Your task to perform on an android device: manage bookmarks in the chrome app Image 0: 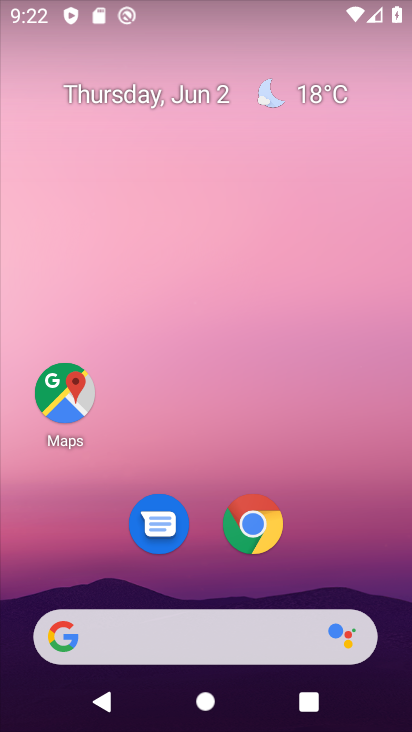
Step 0: click (259, 524)
Your task to perform on an android device: manage bookmarks in the chrome app Image 1: 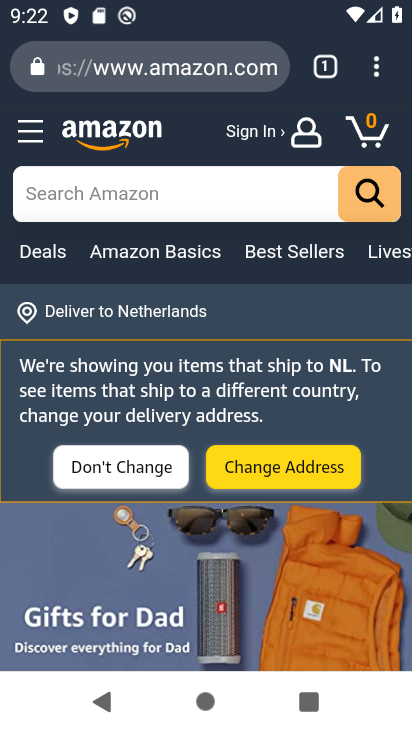
Step 1: click (378, 69)
Your task to perform on an android device: manage bookmarks in the chrome app Image 2: 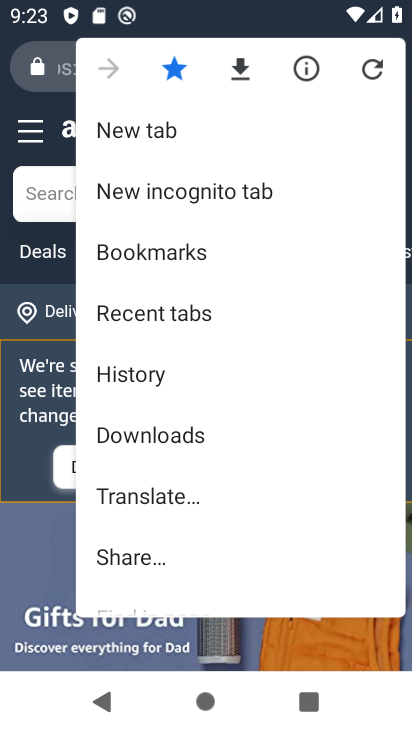
Step 2: click (183, 253)
Your task to perform on an android device: manage bookmarks in the chrome app Image 3: 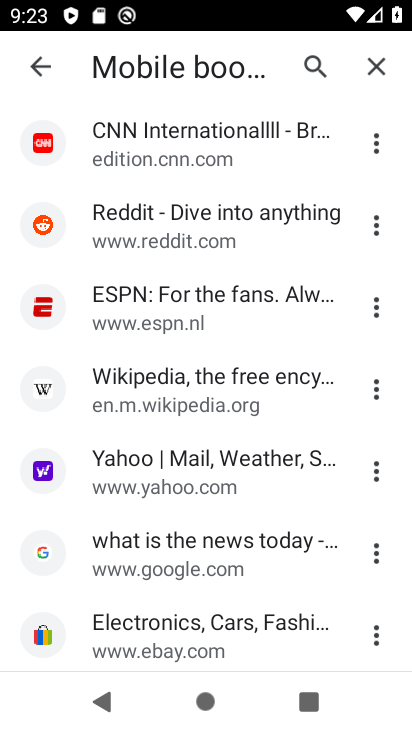
Step 3: click (377, 222)
Your task to perform on an android device: manage bookmarks in the chrome app Image 4: 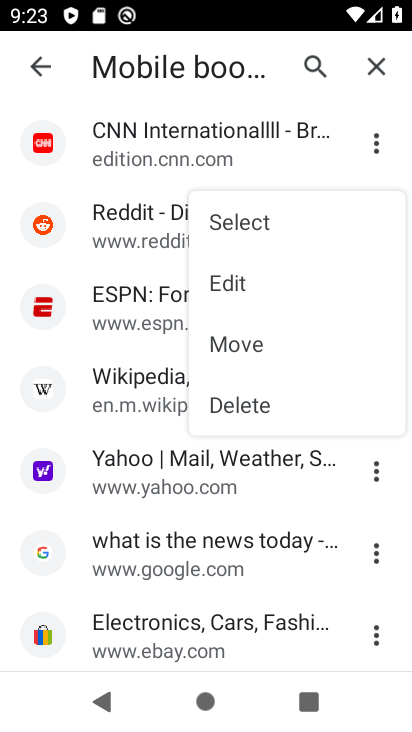
Step 4: click (275, 271)
Your task to perform on an android device: manage bookmarks in the chrome app Image 5: 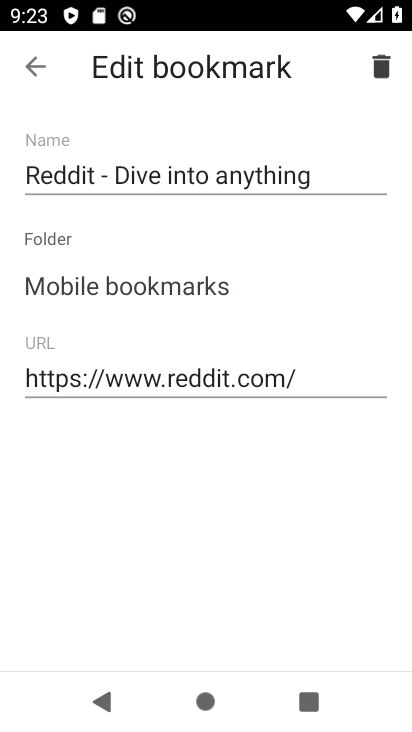
Step 5: click (32, 61)
Your task to perform on an android device: manage bookmarks in the chrome app Image 6: 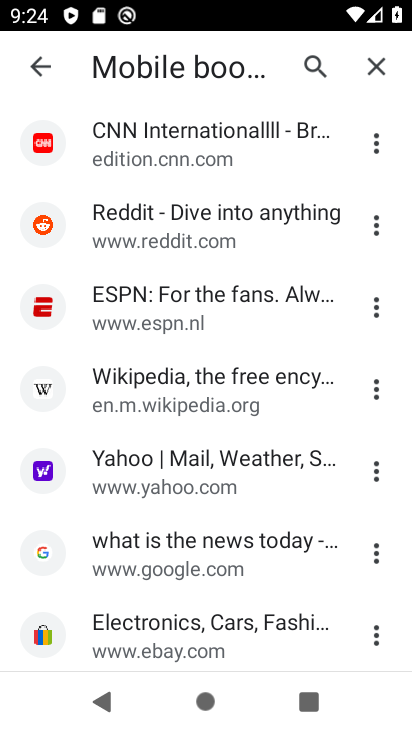
Step 6: task complete